Your task to perform on an android device: change alarm snooze length Image 0: 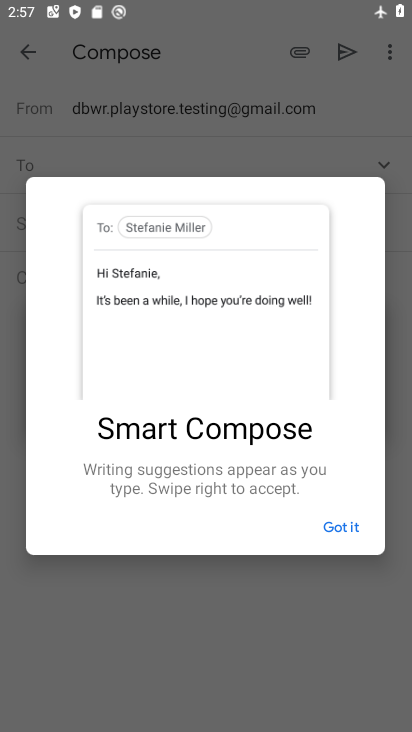
Step 0: press home button
Your task to perform on an android device: change alarm snooze length Image 1: 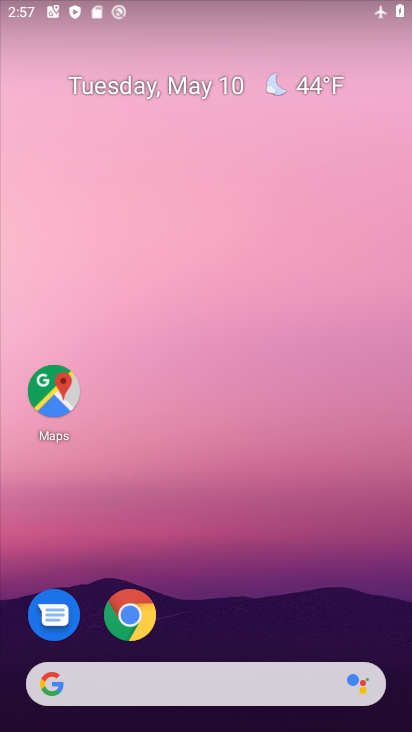
Step 1: drag from (238, 619) to (239, 256)
Your task to perform on an android device: change alarm snooze length Image 2: 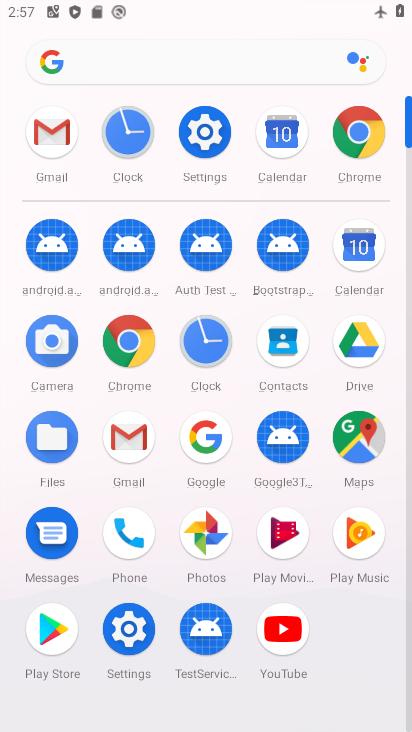
Step 2: click (224, 358)
Your task to perform on an android device: change alarm snooze length Image 3: 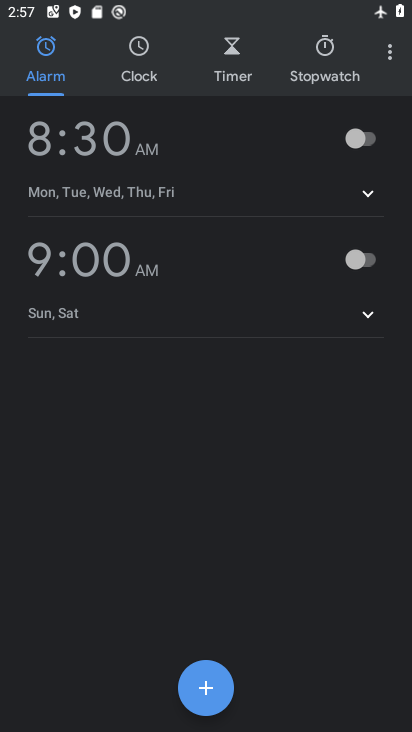
Step 3: click (391, 59)
Your task to perform on an android device: change alarm snooze length Image 4: 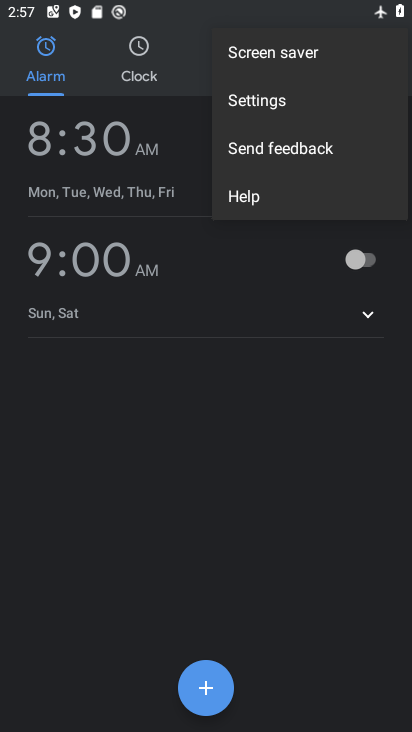
Step 4: click (314, 106)
Your task to perform on an android device: change alarm snooze length Image 5: 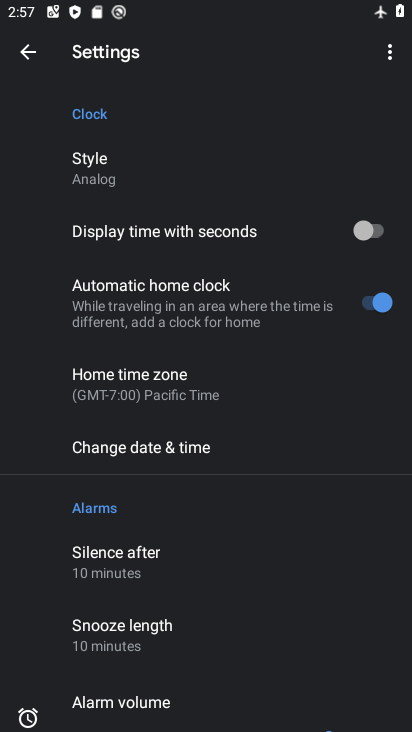
Step 5: drag from (266, 625) to (197, 106)
Your task to perform on an android device: change alarm snooze length Image 6: 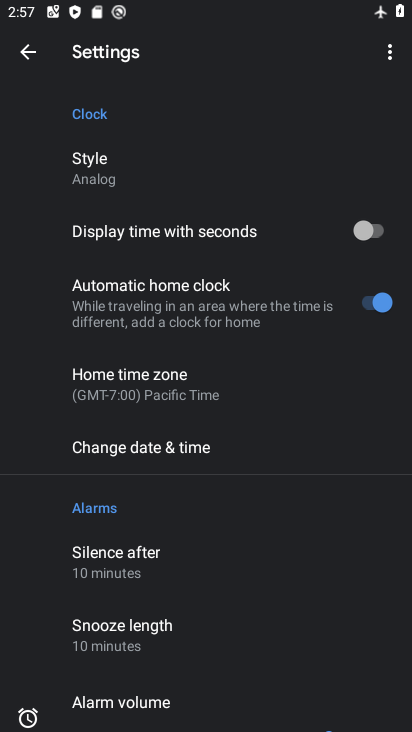
Step 6: click (126, 619)
Your task to perform on an android device: change alarm snooze length Image 7: 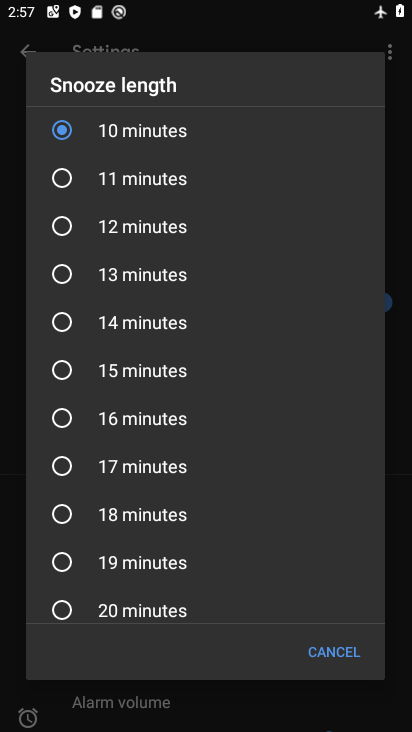
Step 7: click (134, 574)
Your task to perform on an android device: change alarm snooze length Image 8: 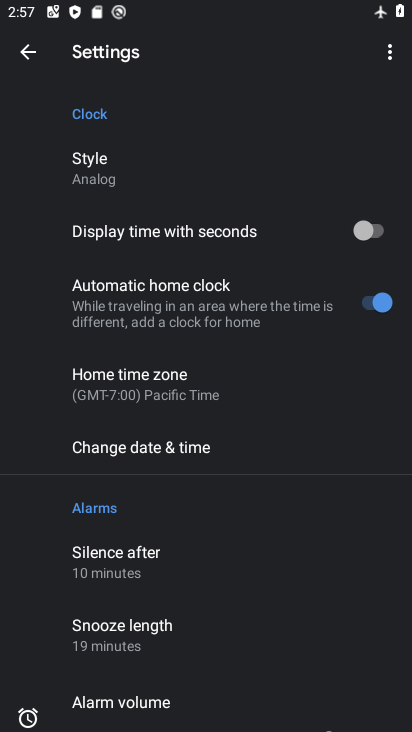
Step 8: task complete